Your task to perform on an android device: Open calendar and show me the fourth week of next month Image 0: 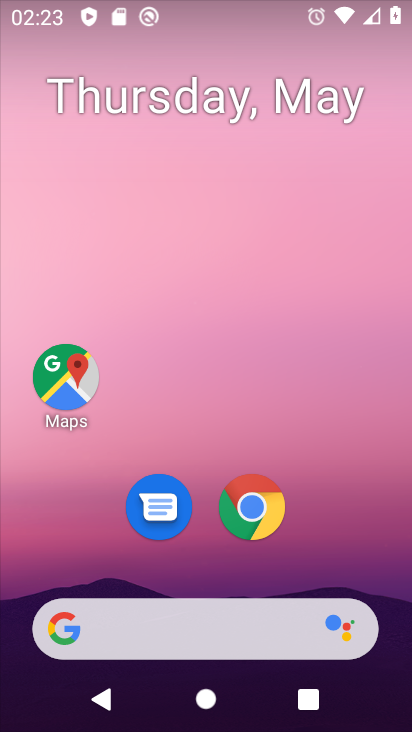
Step 0: drag from (372, 607) to (280, 35)
Your task to perform on an android device: Open calendar and show me the fourth week of next month Image 1: 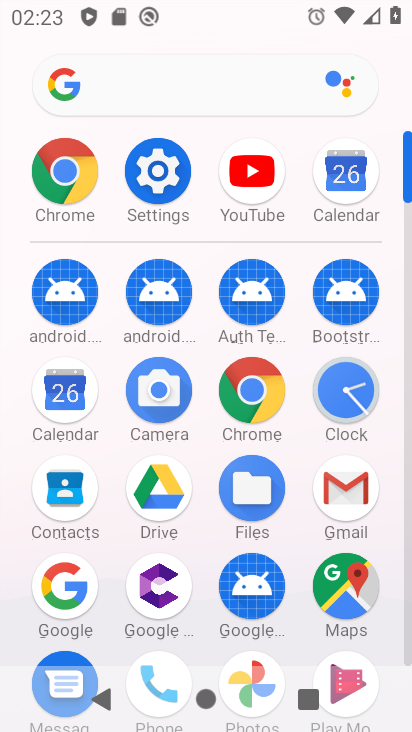
Step 1: click (60, 370)
Your task to perform on an android device: Open calendar and show me the fourth week of next month Image 2: 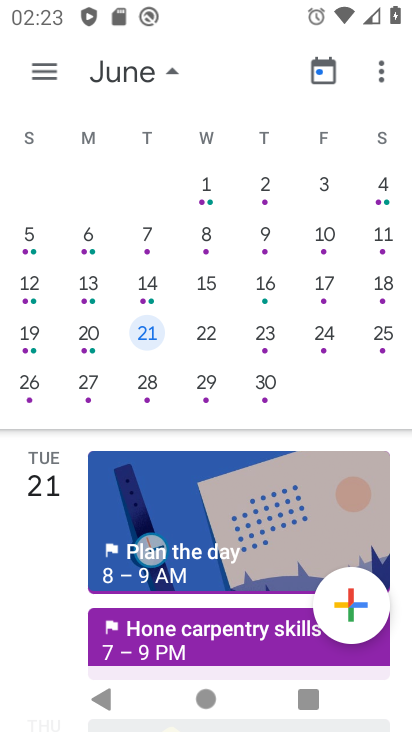
Step 2: click (298, 321)
Your task to perform on an android device: Open calendar and show me the fourth week of next month Image 3: 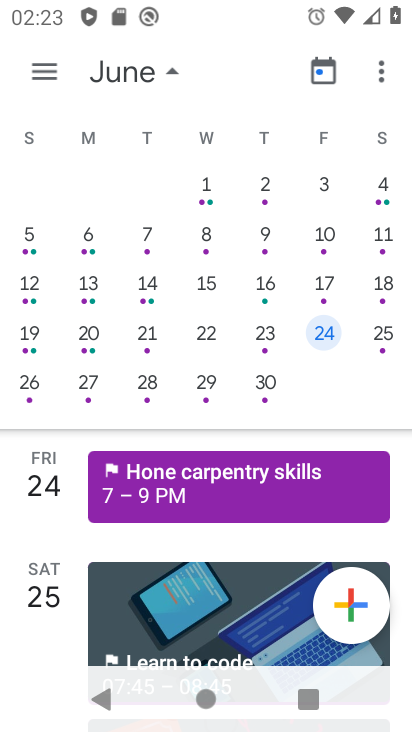
Step 3: task complete